Your task to perform on an android device: change your default location settings in chrome Image 0: 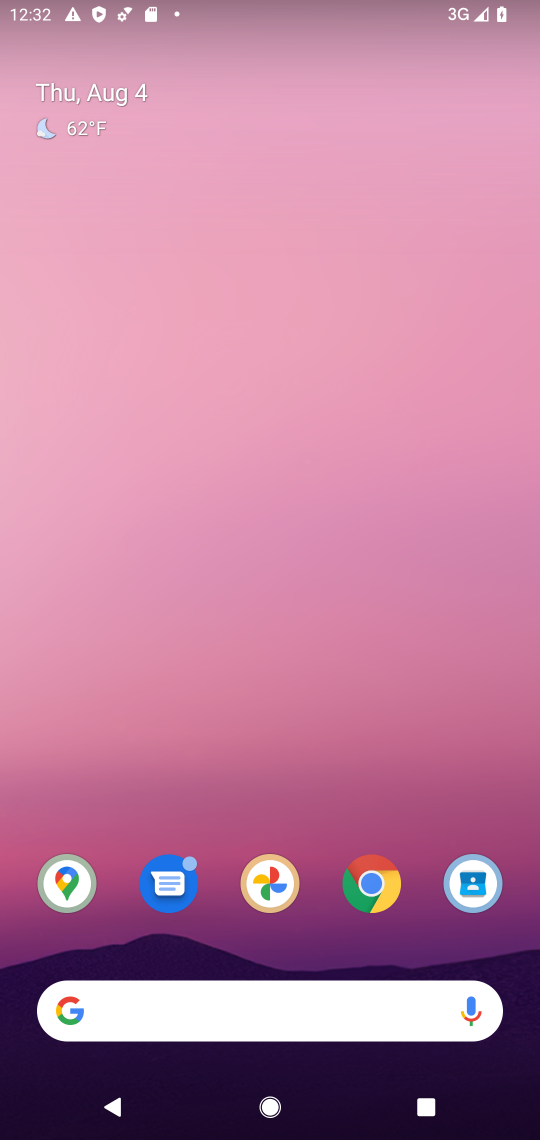
Step 0: drag from (224, 955) to (302, 334)
Your task to perform on an android device: change your default location settings in chrome Image 1: 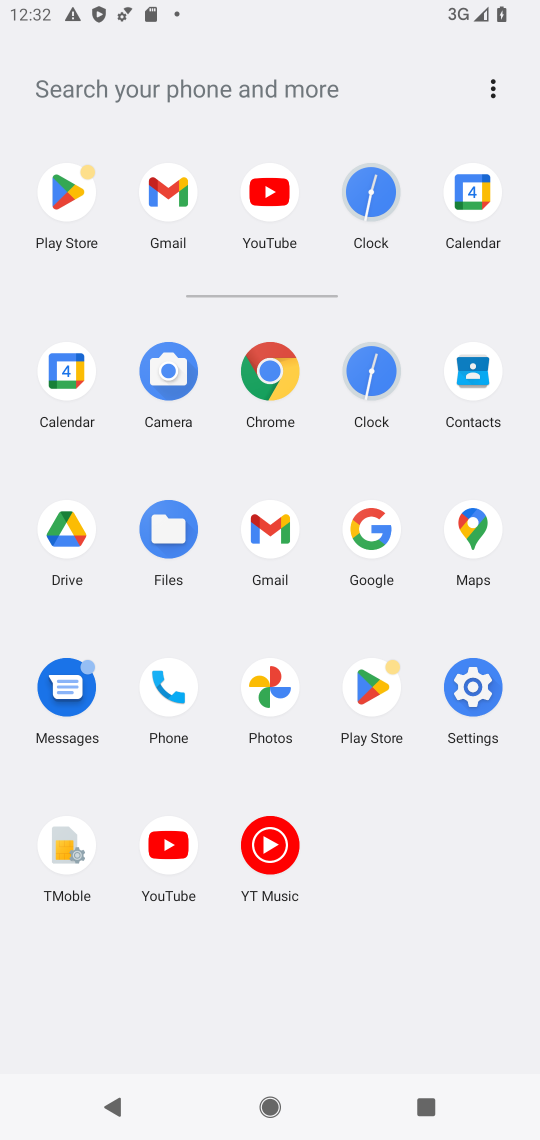
Step 1: click (268, 373)
Your task to perform on an android device: change your default location settings in chrome Image 2: 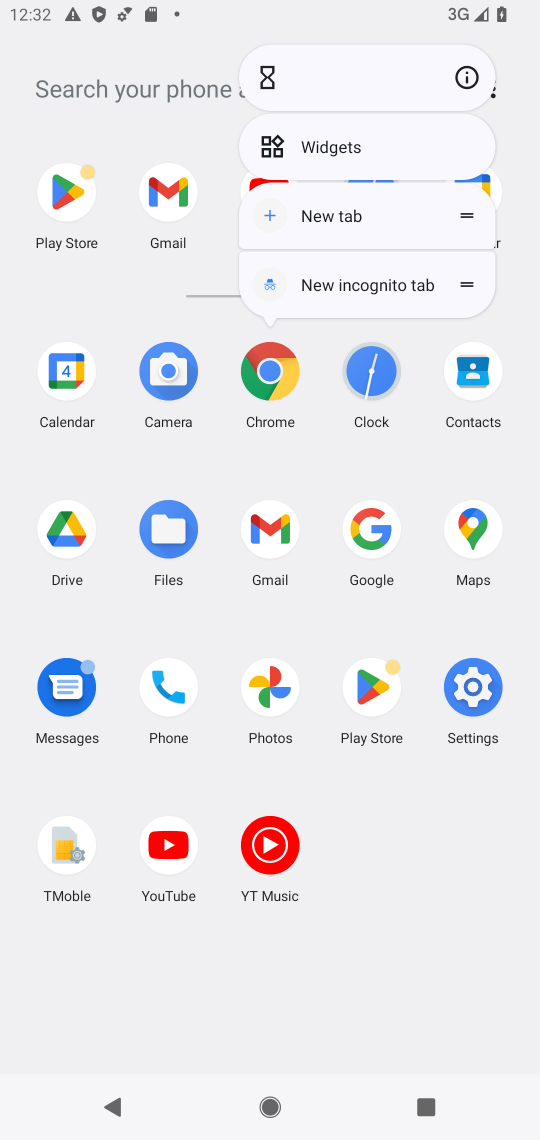
Step 2: click (467, 69)
Your task to perform on an android device: change your default location settings in chrome Image 3: 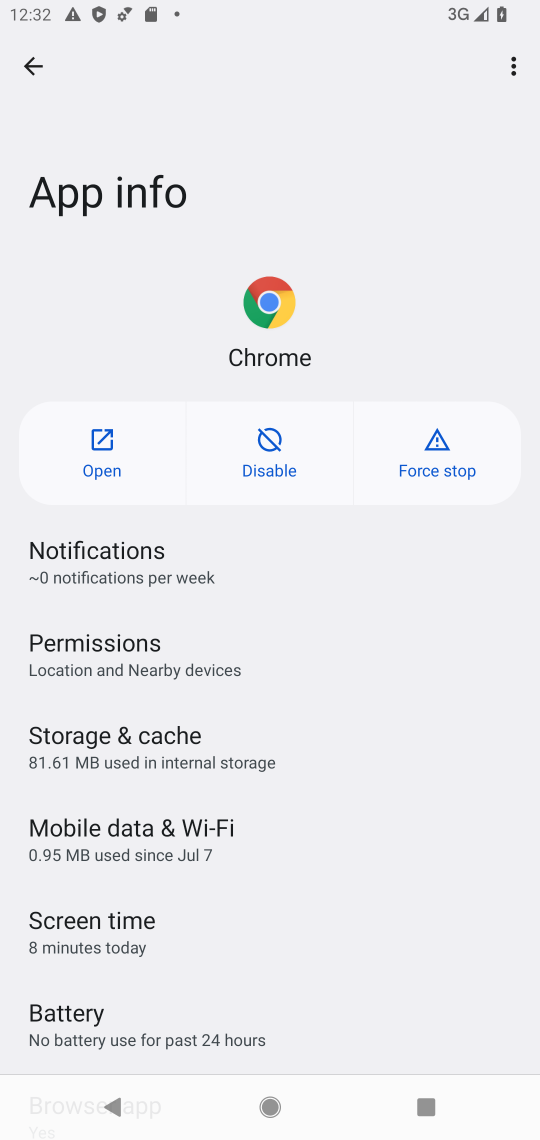
Step 3: click (96, 442)
Your task to perform on an android device: change your default location settings in chrome Image 4: 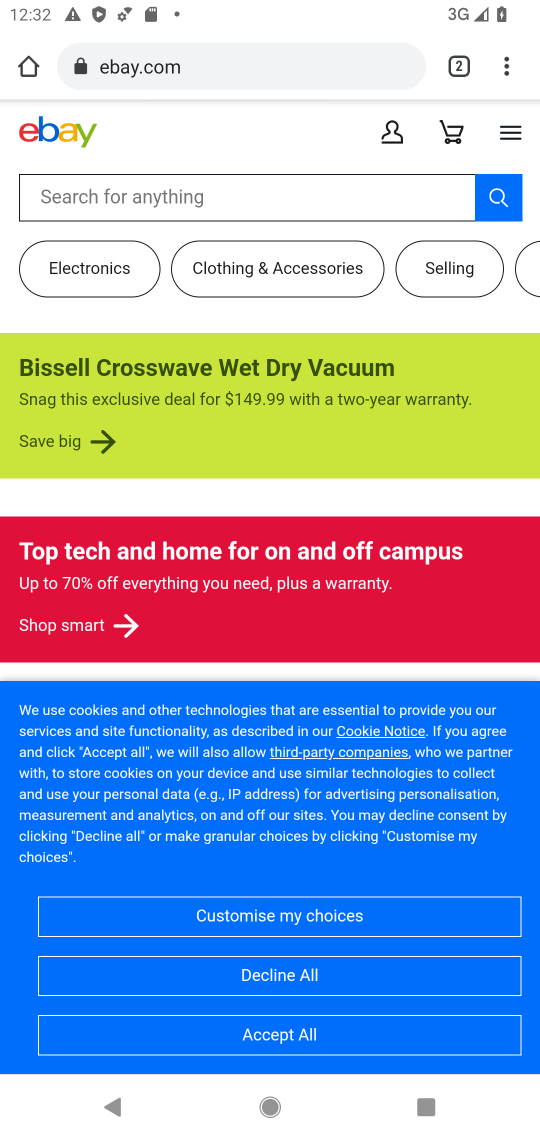
Step 4: click (270, 234)
Your task to perform on an android device: change your default location settings in chrome Image 5: 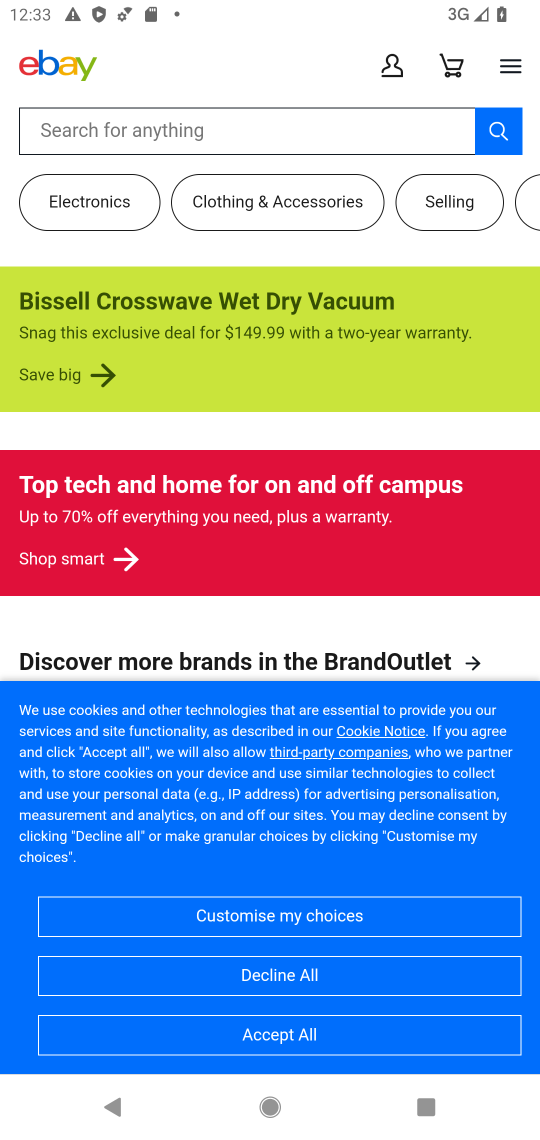
Step 5: drag from (270, 456) to (361, 1137)
Your task to perform on an android device: change your default location settings in chrome Image 6: 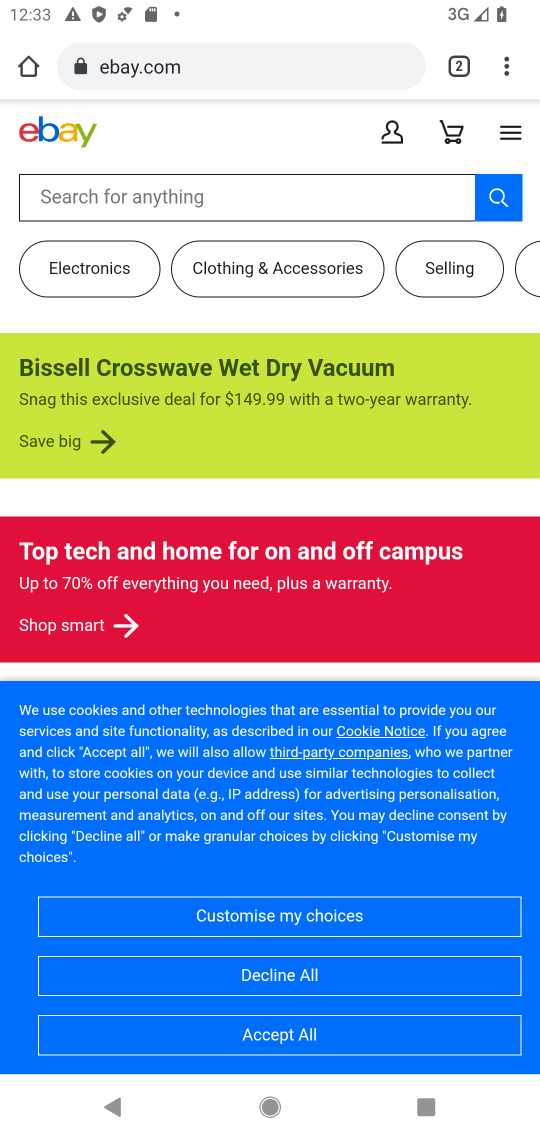
Step 6: drag from (512, 50) to (348, 866)
Your task to perform on an android device: change your default location settings in chrome Image 7: 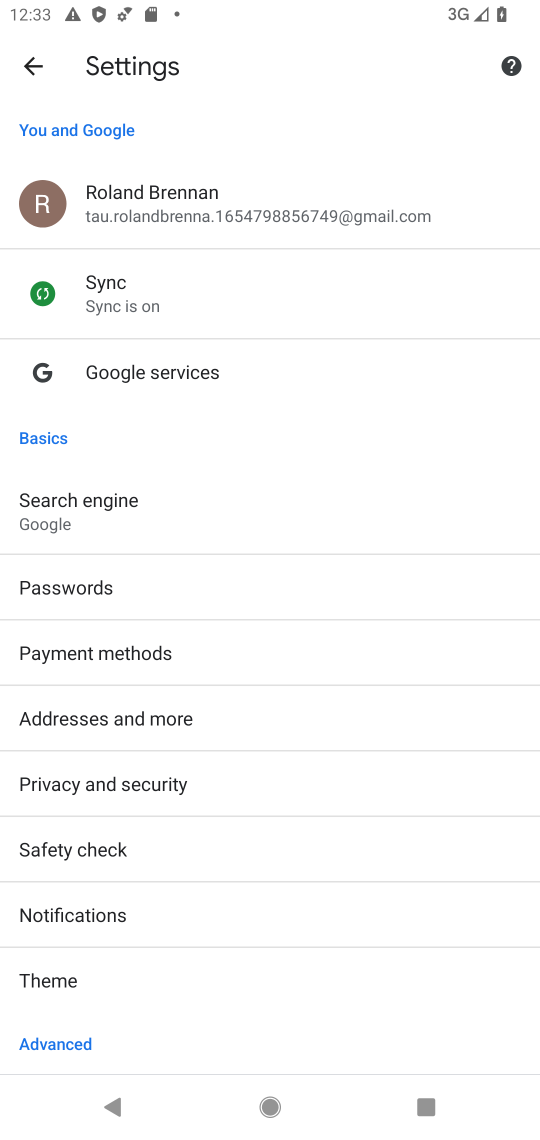
Step 7: drag from (200, 781) to (249, 464)
Your task to perform on an android device: change your default location settings in chrome Image 8: 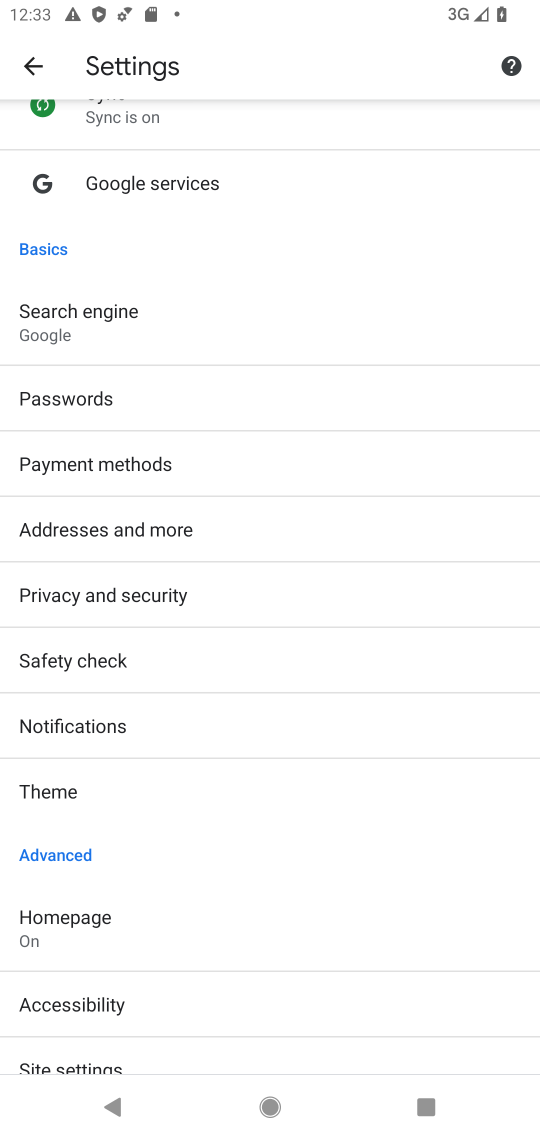
Step 8: drag from (153, 985) to (236, 374)
Your task to perform on an android device: change your default location settings in chrome Image 9: 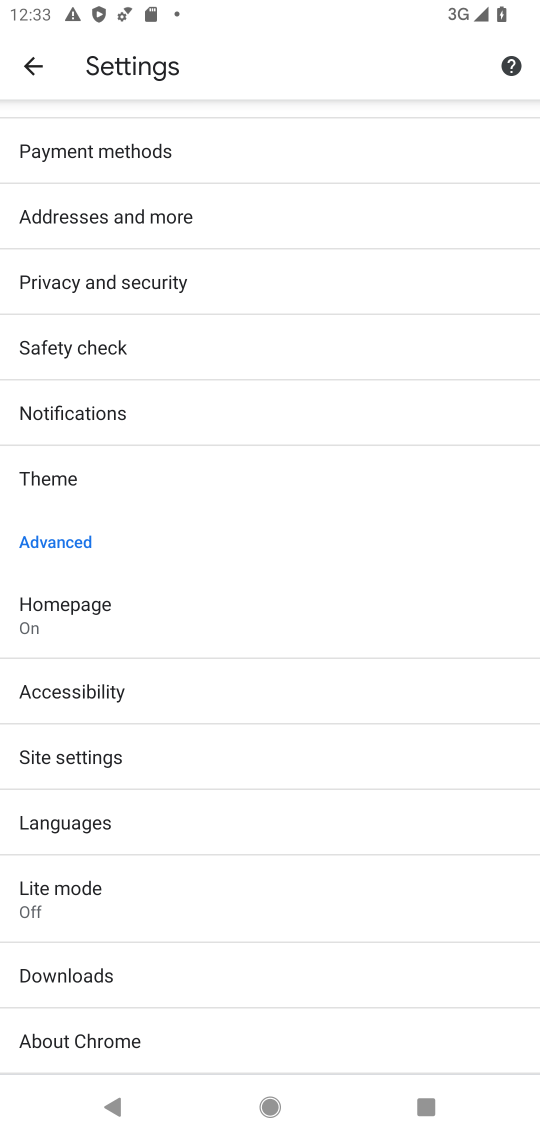
Step 9: click (126, 754)
Your task to perform on an android device: change your default location settings in chrome Image 10: 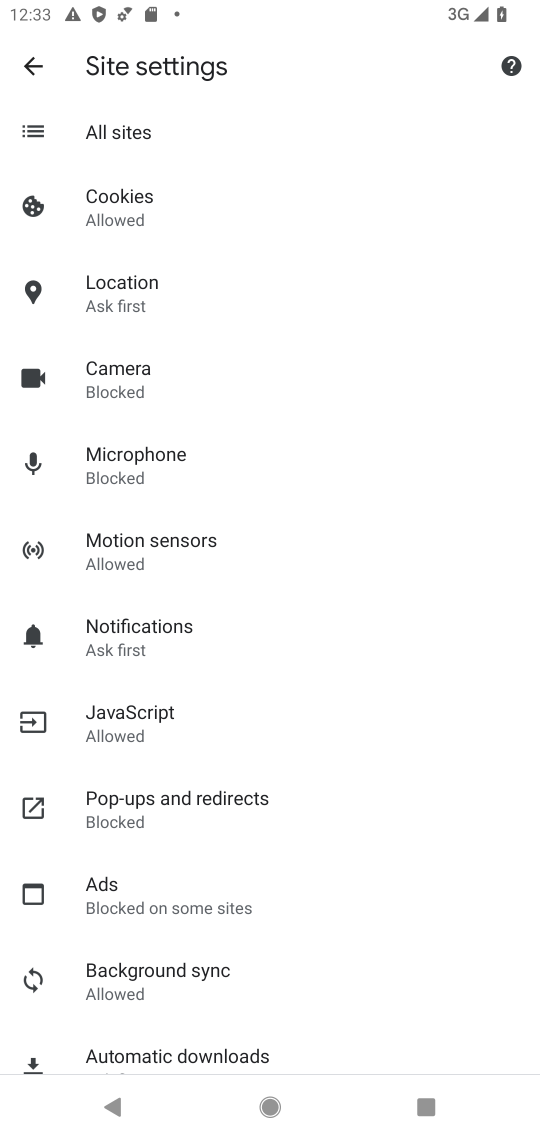
Step 10: click (195, 309)
Your task to perform on an android device: change your default location settings in chrome Image 11: 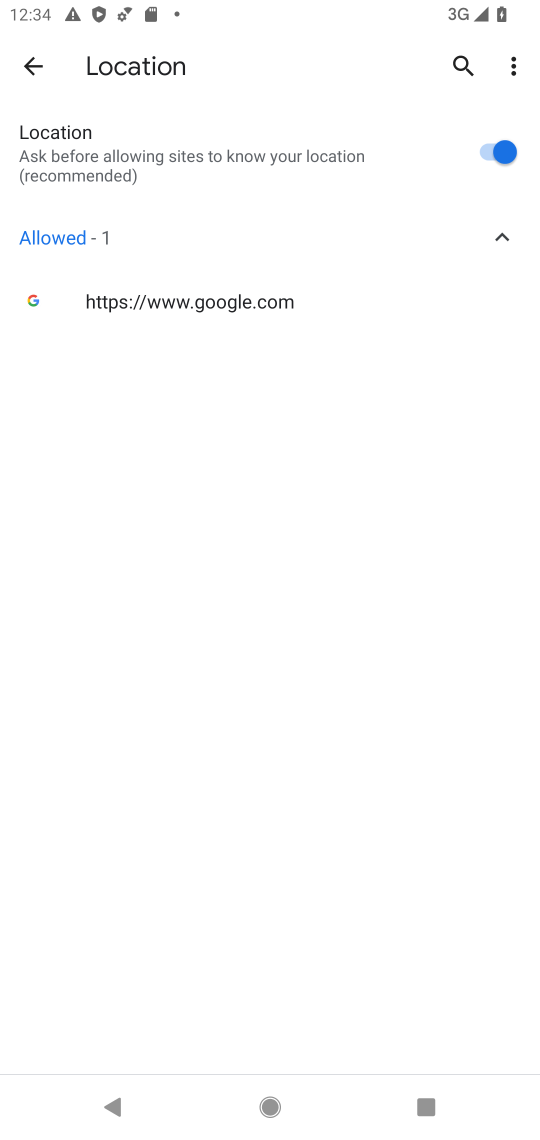
Step 11: click (504, 157)
Your task to perform on an android device: change your default location settings in chrome Image 12: 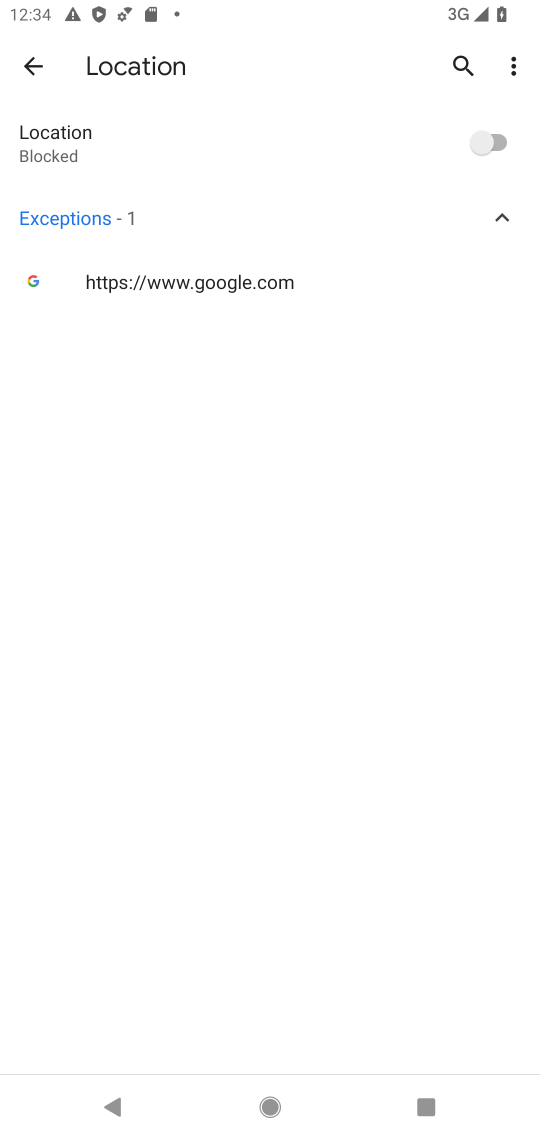
Step 12: task complete